Your task to perform on an android device: turn off wifi Image 0: 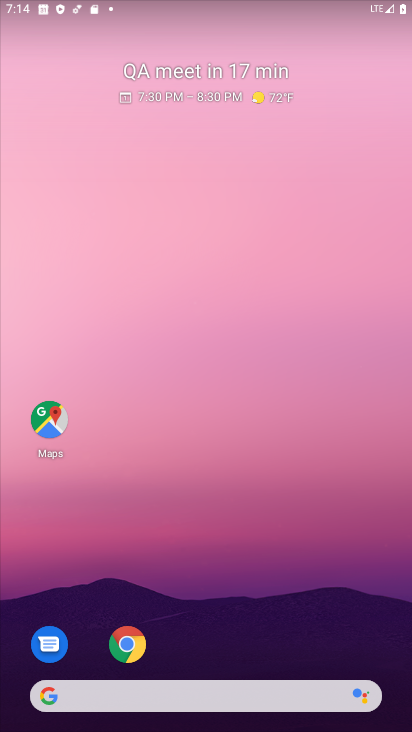
Step 0: drag from (236, 701) to (223, 200)
Your task to perform on an android device: turn off wifi Image 1: 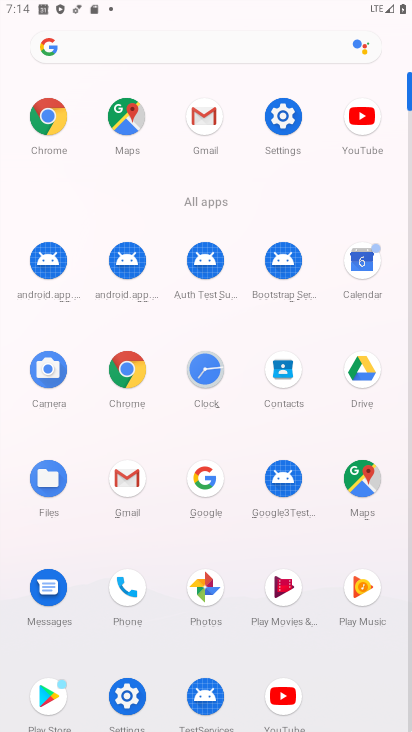
Step 1: click (261, 132)
Your task to perform on an android device: turn off wifi Image 2: 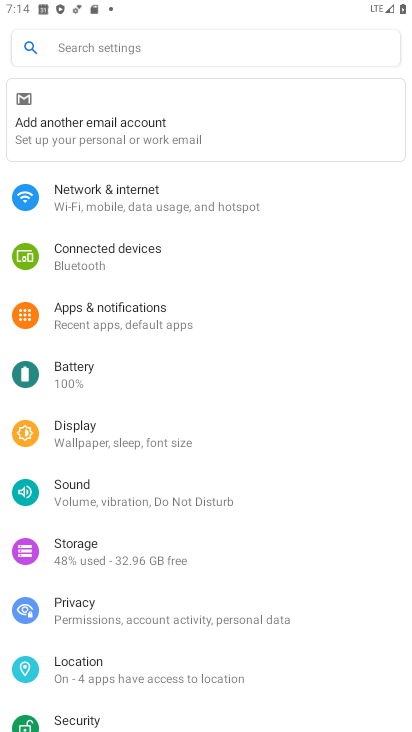
Step 2: click (132, 212)
Your task to perform on an android device: turn off wifi Image 3: 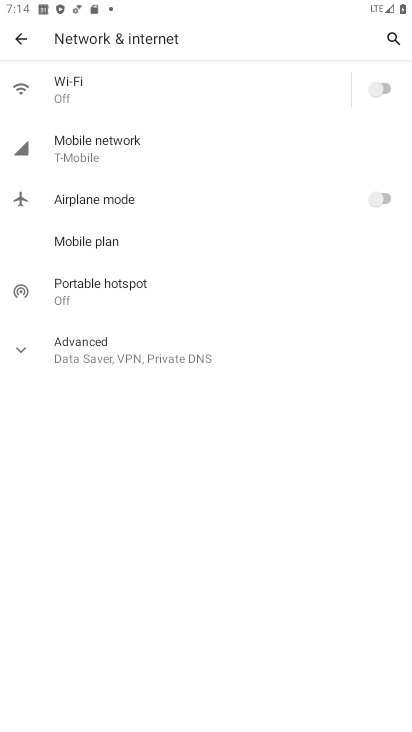
Step 3: click (118, 90)
Your task to perform on an android device: turn off wifi Image 4: 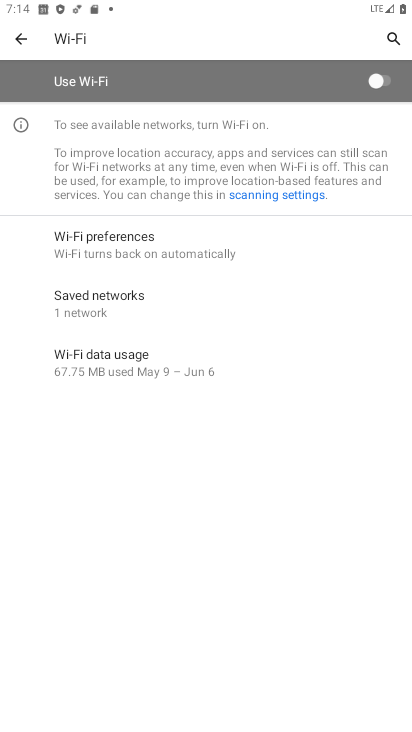
Step 4: click (382, 77)
Your task to perform on an android device: turn off wifi Image 5: 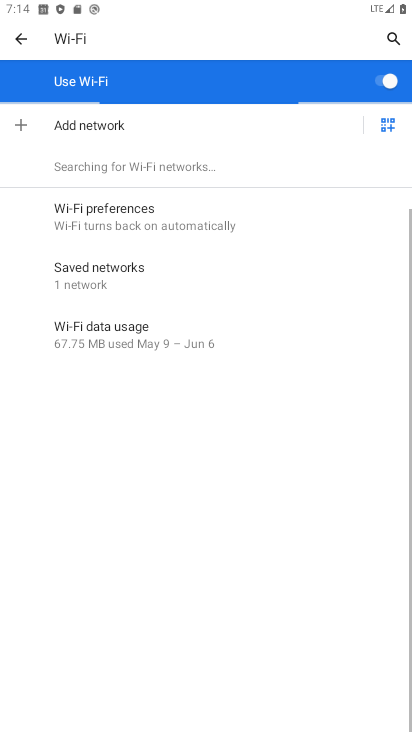
Step 5: click (382, 77)
Your task to perform on an android device: turn off wifi Image 6: 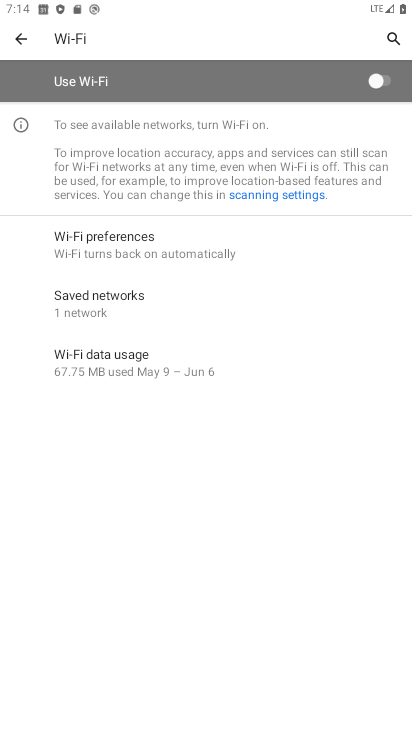
Step 6: task complete